Your task to perform on an android device: Go to internet settings Image 0: 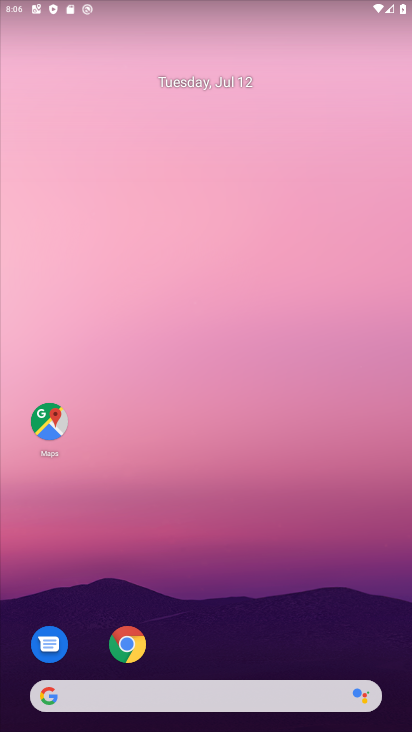
Step 0: drag from (187, 643) to (208, 52)
Your task to perform on an android device: Go to internet settings Image 1: 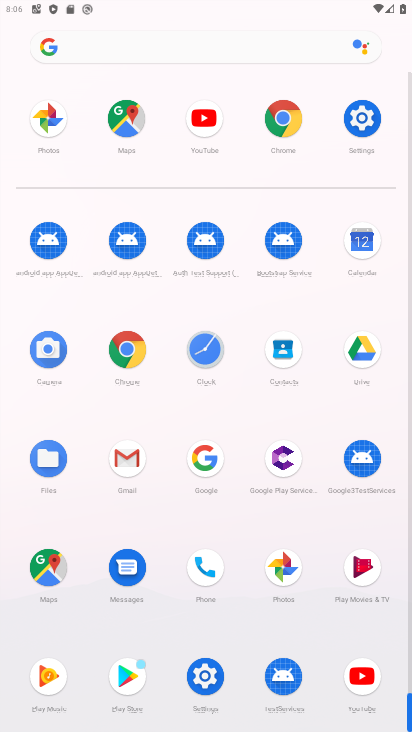
Step 1: drag from (186, 624) to (209, 306)
Your task to perform on an android device: Go to internet settings Image 2: 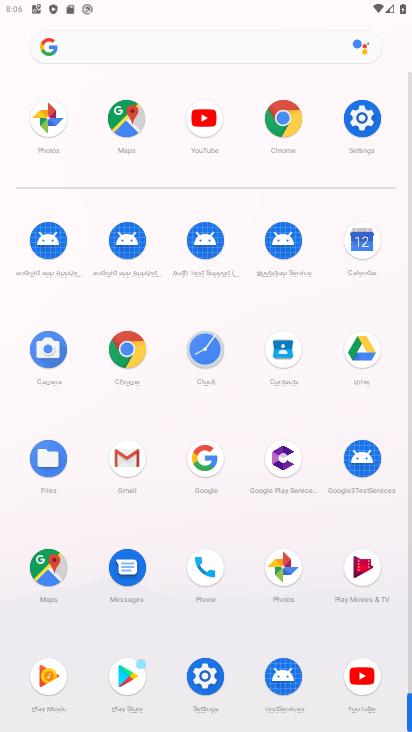
Step 2: drag from (226, 666) to (262, 476)
Your task to perform on an android device: Go to internet settings Image 3: 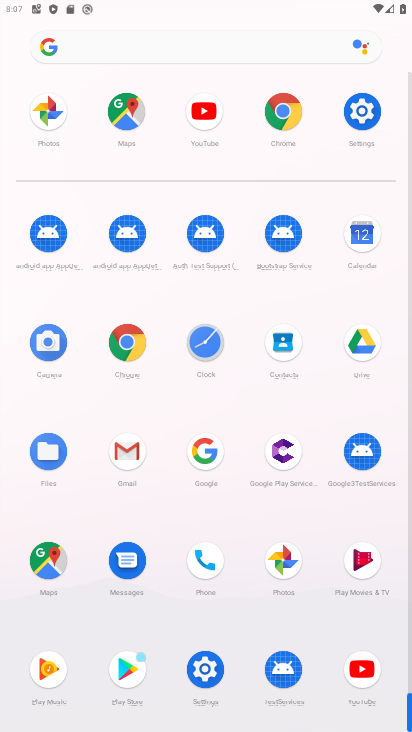
Step 3: click (203, 671)
Your task to perform on an android device: Go to internet settings Image 4: 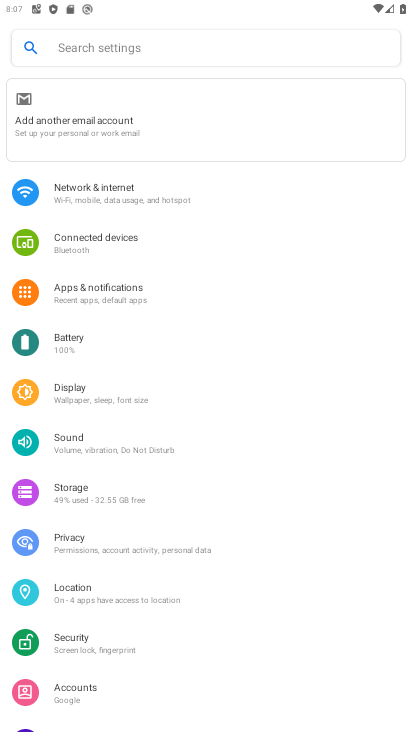
Step 4: click (120, 192)
Your task to perform on an android device: Go to internet settings Image 5: 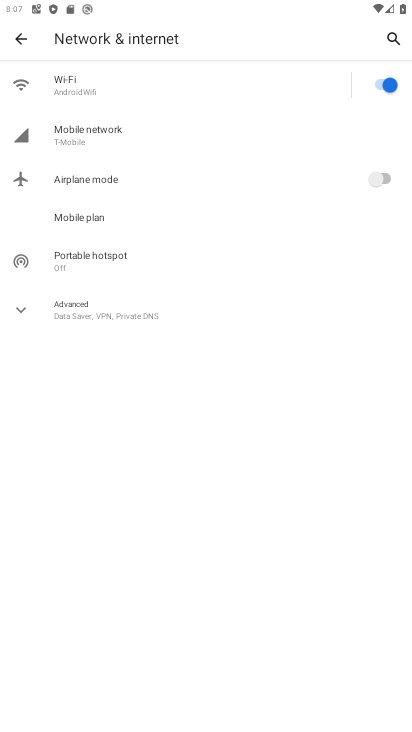
Step 5: task complete